Your task to perform on an android device: open app "Google Maps" (install if not already installed) Image 0: 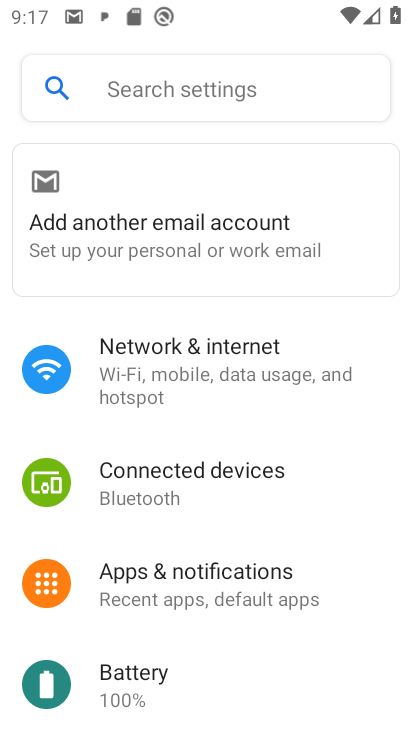
Step 0: press home button
Your task to perform on an android device: open app "Google Maps" (install if not already installed) Image 1: 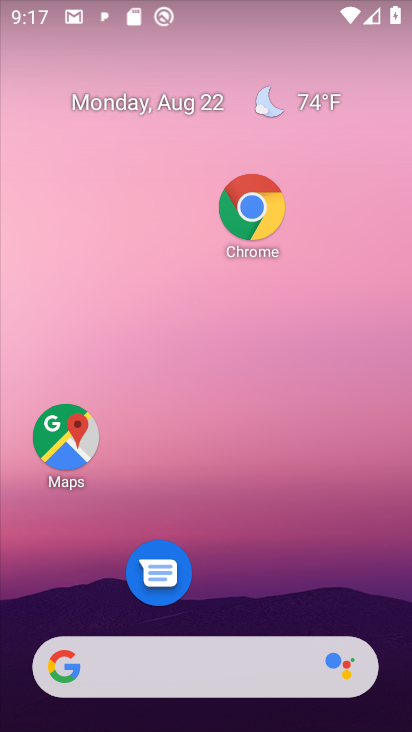
Step 1: drag from (215, 620) to (287, 64)
Your task to perform on an android device: open app "Google Maps" (install if not already installed) Image 2: 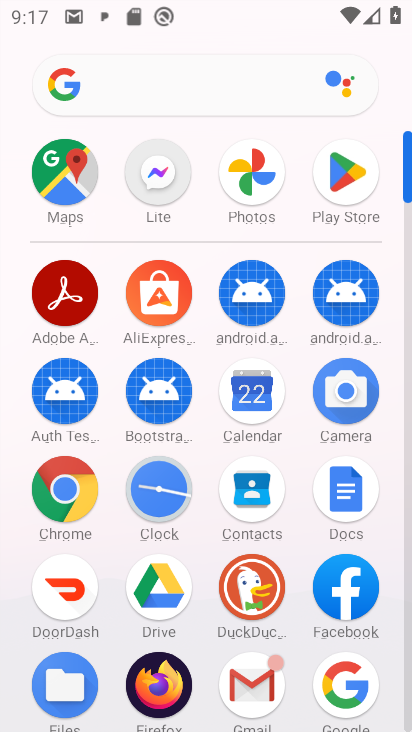
Step 2: click (351, 172)
Your task to perform on an android device: open app "Google Maps" (install if not already installed) Image 3: 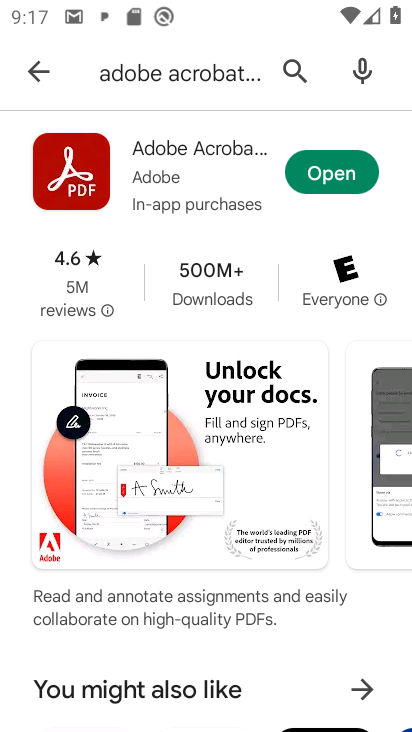
Step 3: click (184, 85)
Your task to perform on an android device: open app "Google Maps" (install if not already installed) Image 4: 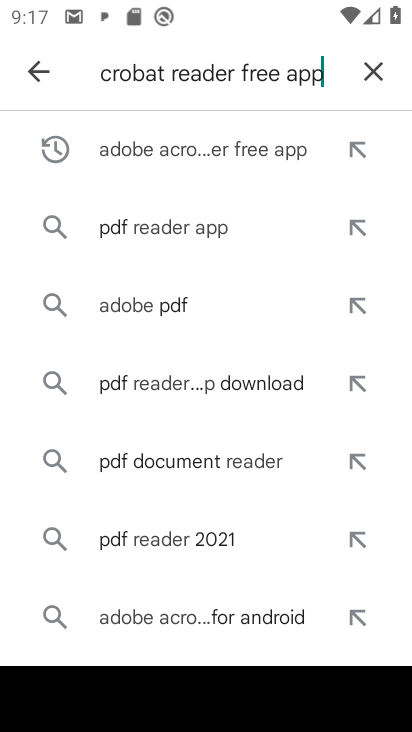
Step 4: click (371, 69)
Your task to perform on an android device: open app "Google Maps" (install if not already installed) Image 5: 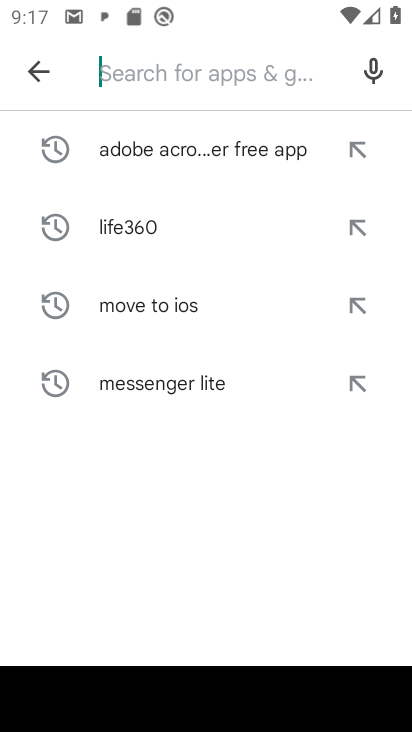
Step 5: type "google maps"
Your task to perform on an android device: open app "Google Maps" (install if not already installed) Image 6: 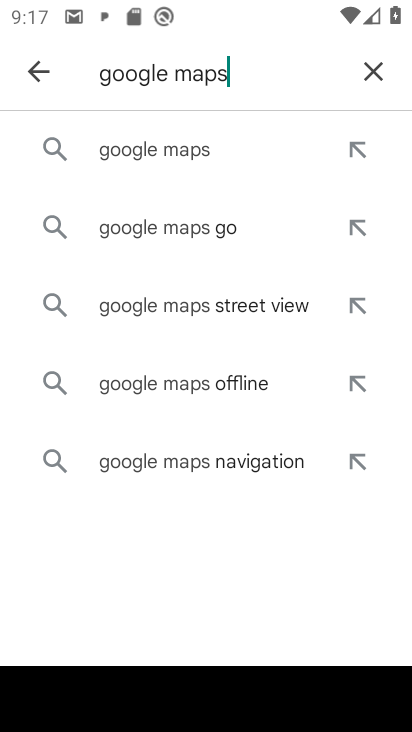
Step 6: click (167, 142)
Your task to perform on an android device: open app "Google Maps" (install if not already installed) Image 7: 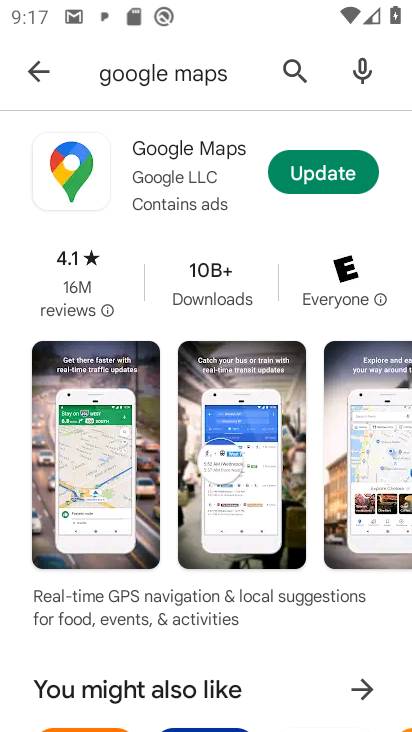
Step 7: click (355, 181)
Your task to perform on an android device: open app "Google Maps" (install if not already installed) Image 8: 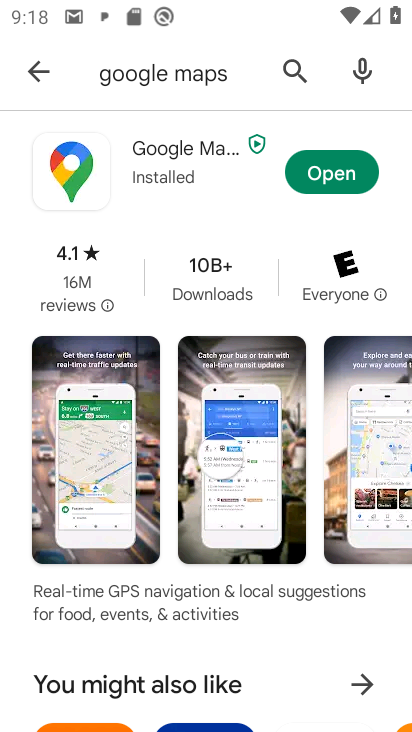
Step 8: click (325, 181)
Your task to perform on an android device: open app "Google Maps" (install if not already installed) Image 9: 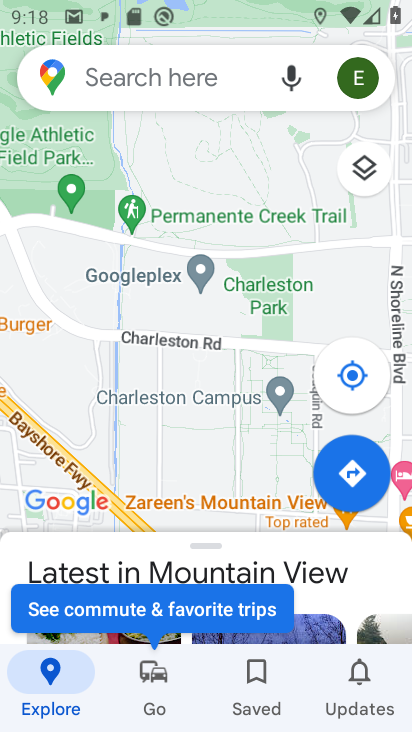
Step 9: task complete